Your task to perform on an android device: Open calendar and show me the first week of next month Image 0: 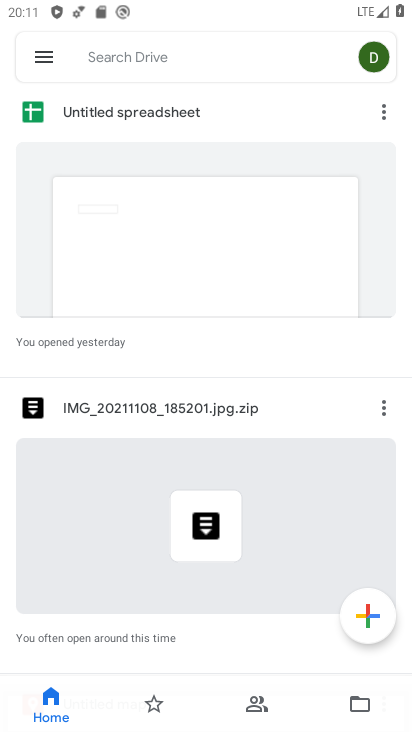
Step 0: press home button
Your task to perform on an android device: Open calendar and show me the first week of next month Image 1: 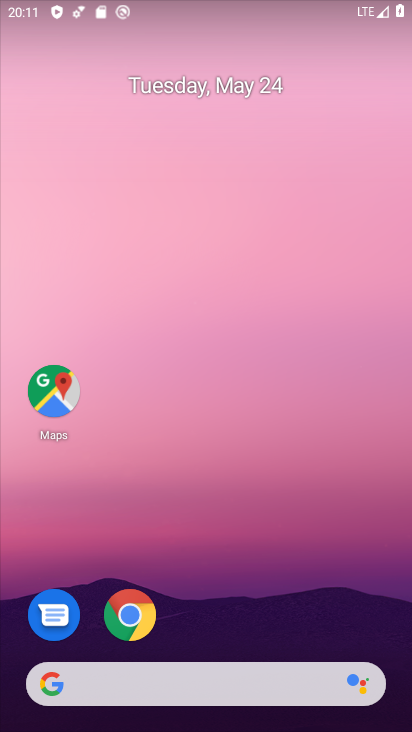
Step 1: drag from (193, 567) to (241, 260)
Your task to perform on an android device: Open calendar and show me the first week of next month Image 2: 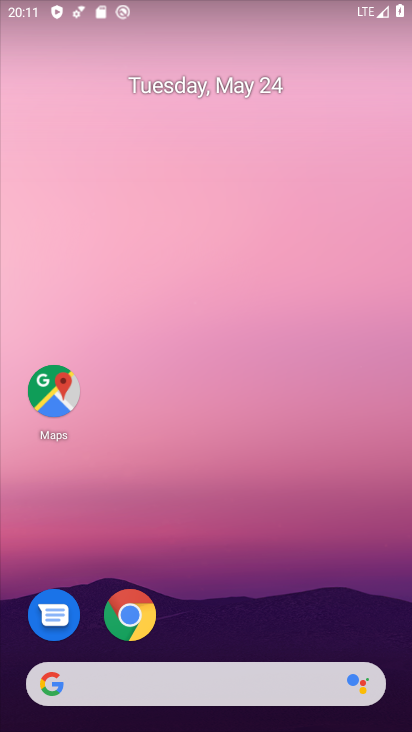
Step 2: drag from (216, 581) to (279, 236)
Your task to perform on an android device: Open calendar and show me the first week of next month Image 3: 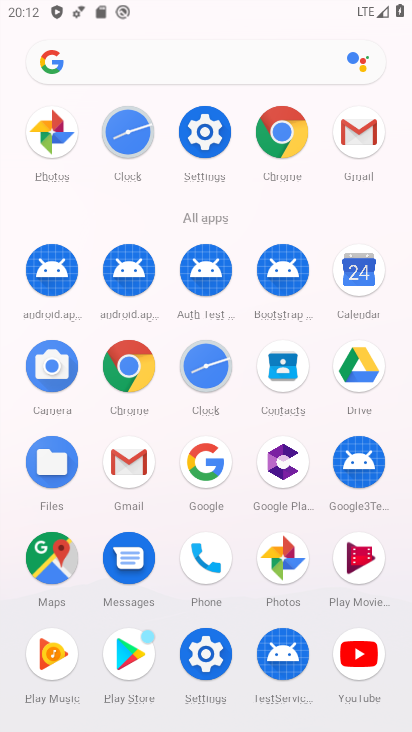
Step 3: click (371, 263)
Your task to perform on an android device: Open calendar and show me the first week of next month Image 4: 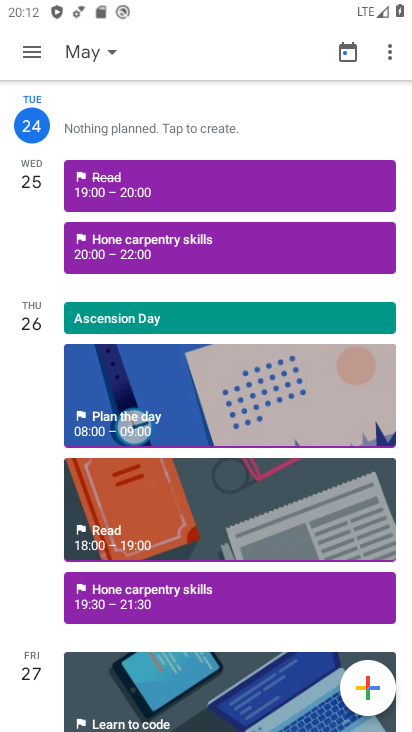
Step 4: click (20, 48)
Your task to perform on an android device: Open calendar and show me the first week of next month Image 5: 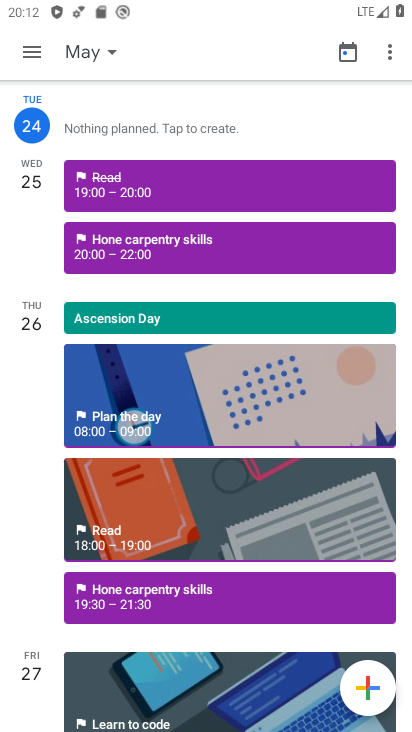
Step 5: click (30, 50)
Your task to perform on an android device: Open calendar and show me the first week of next month Image 6: 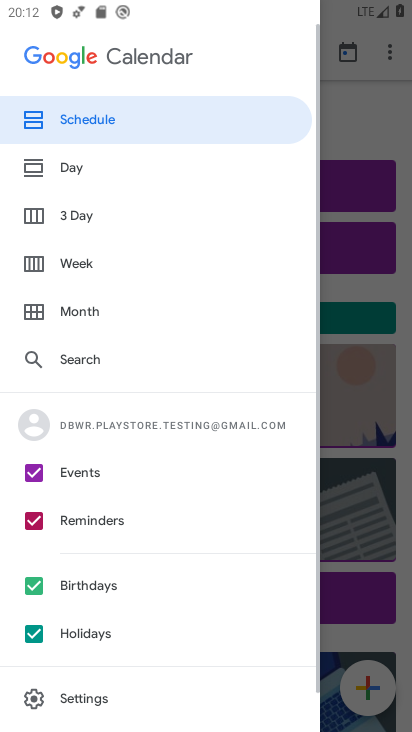
Step 6: click (97, 266)
Your task to perform on an android device: Open calendar and show me the first week of next month Image 7: 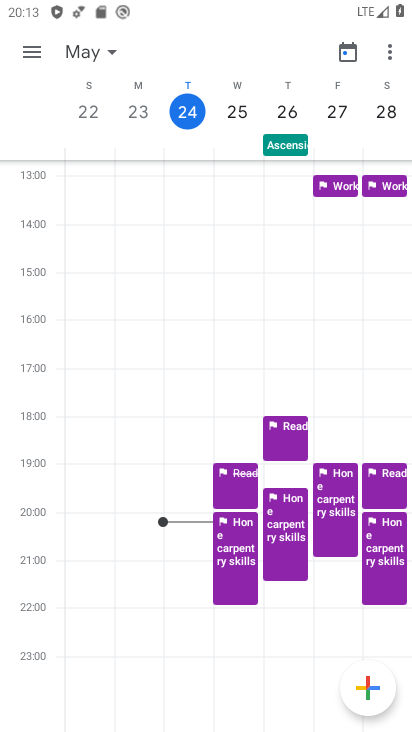
Step 7: task complete